Your task to perform on an android device: open app "Skype" (install if not already installed) Image 0: 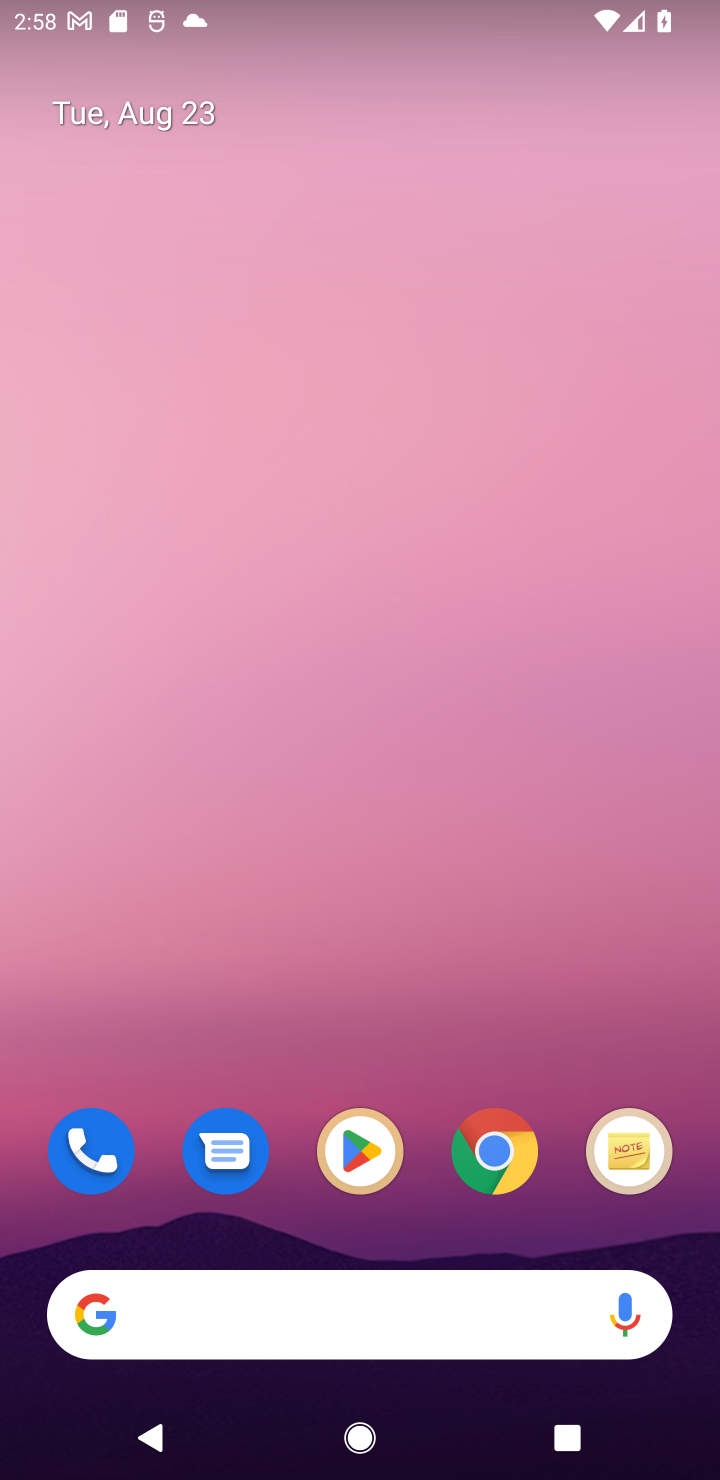
Step 0: click (350, 1146)
Your task to perform on an android device: open app "Skype" (install if not already installed) Image 1: 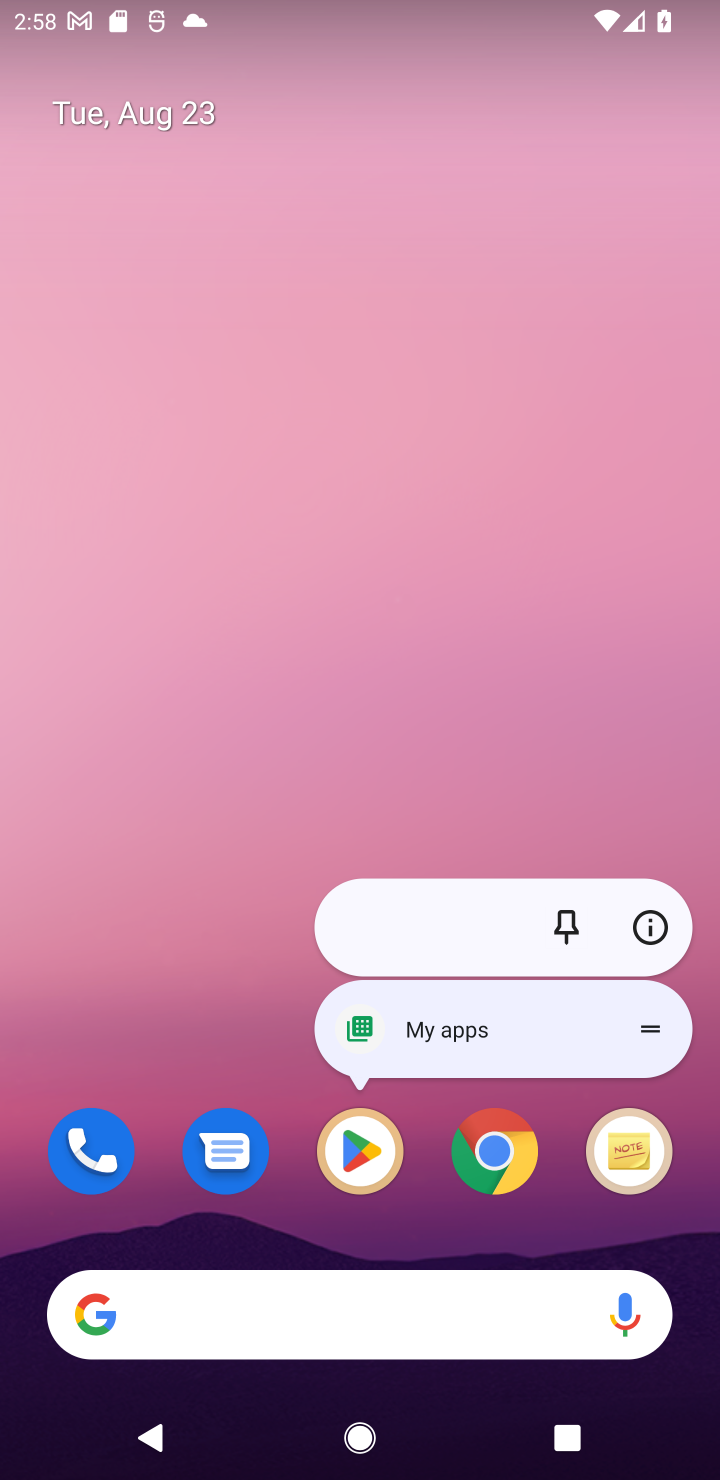
Step 1: click (350, 1149)
Your task to perform on an android device: open app "Skype" (install if not already installed) Image 2: 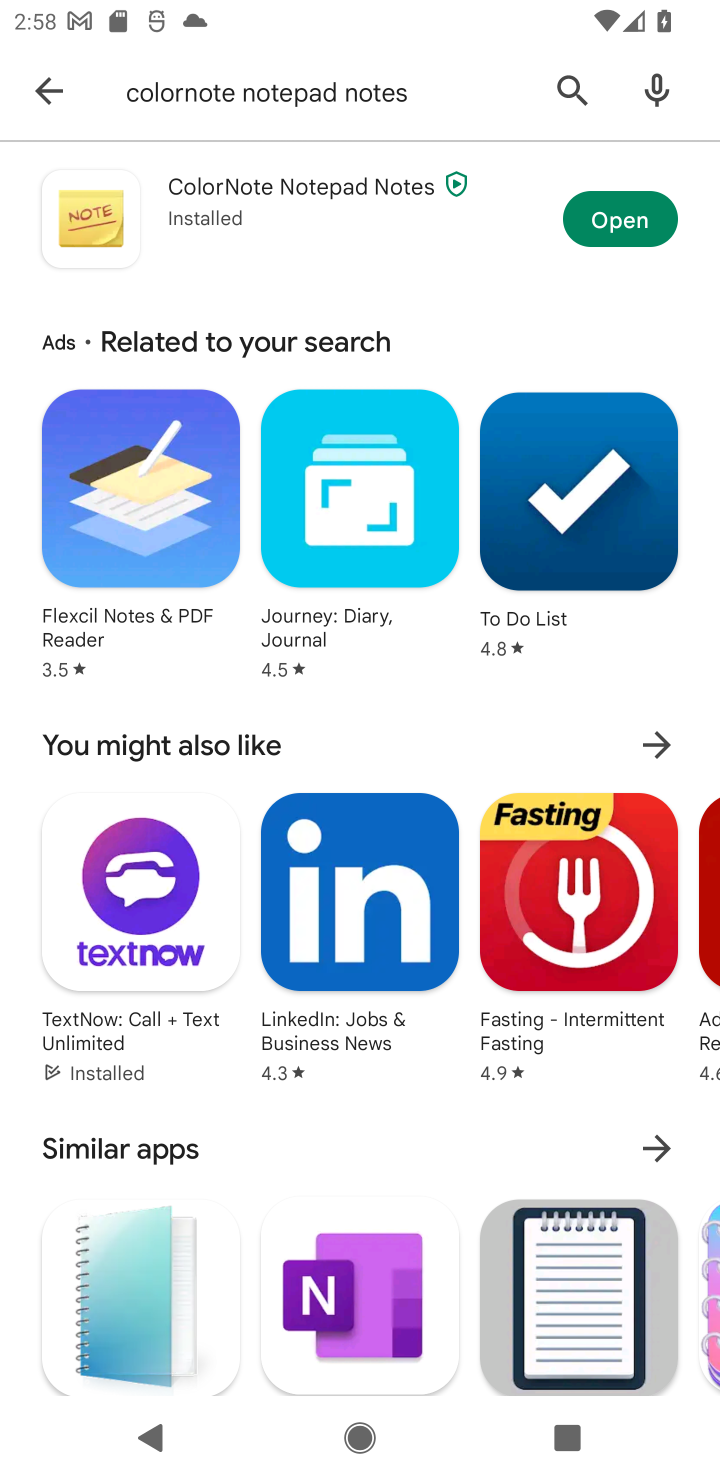
Step 2: click (567, 89)
Your task to perform on an android device: open app "Skype" (install if not already installed) Image 3: 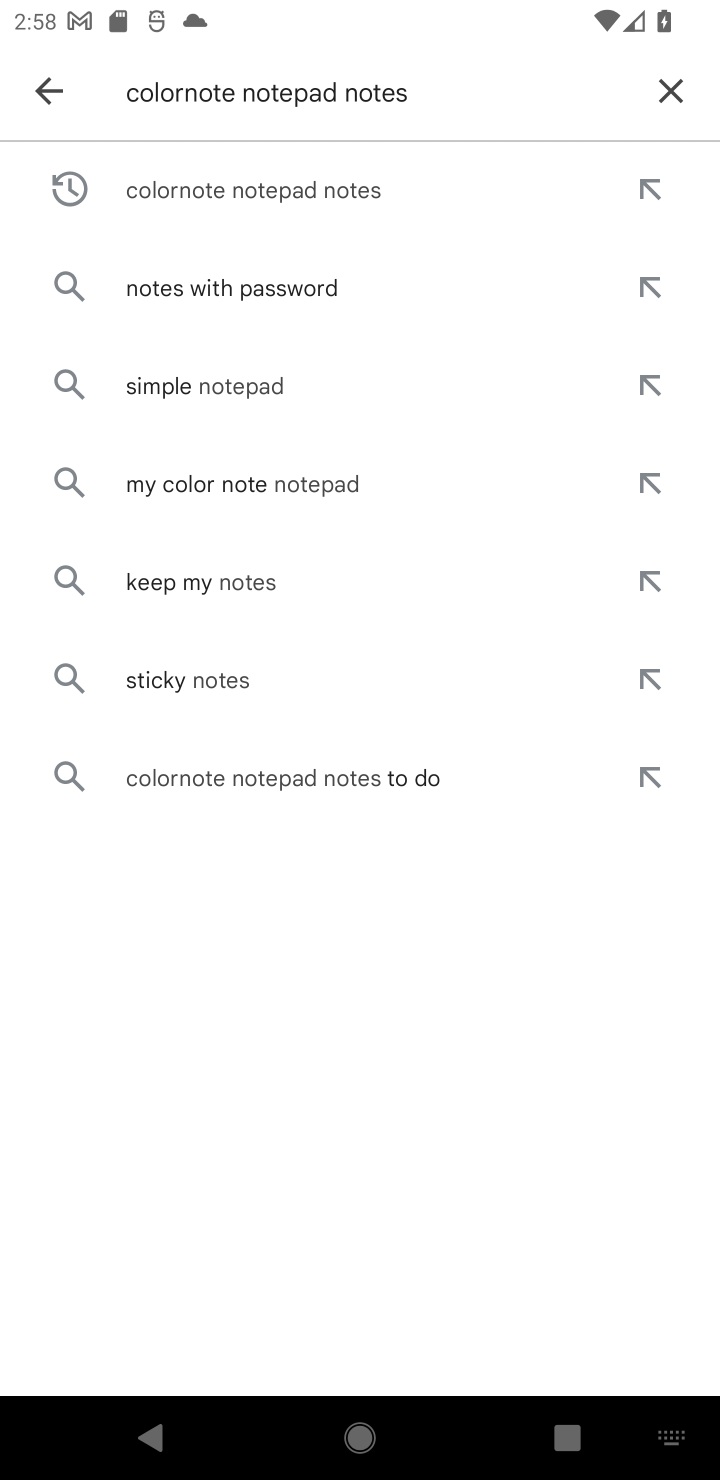
Step 3: click (664, 84)
Your task to perform on an android device: open app "Skype" (install if not already installed) Image 4: 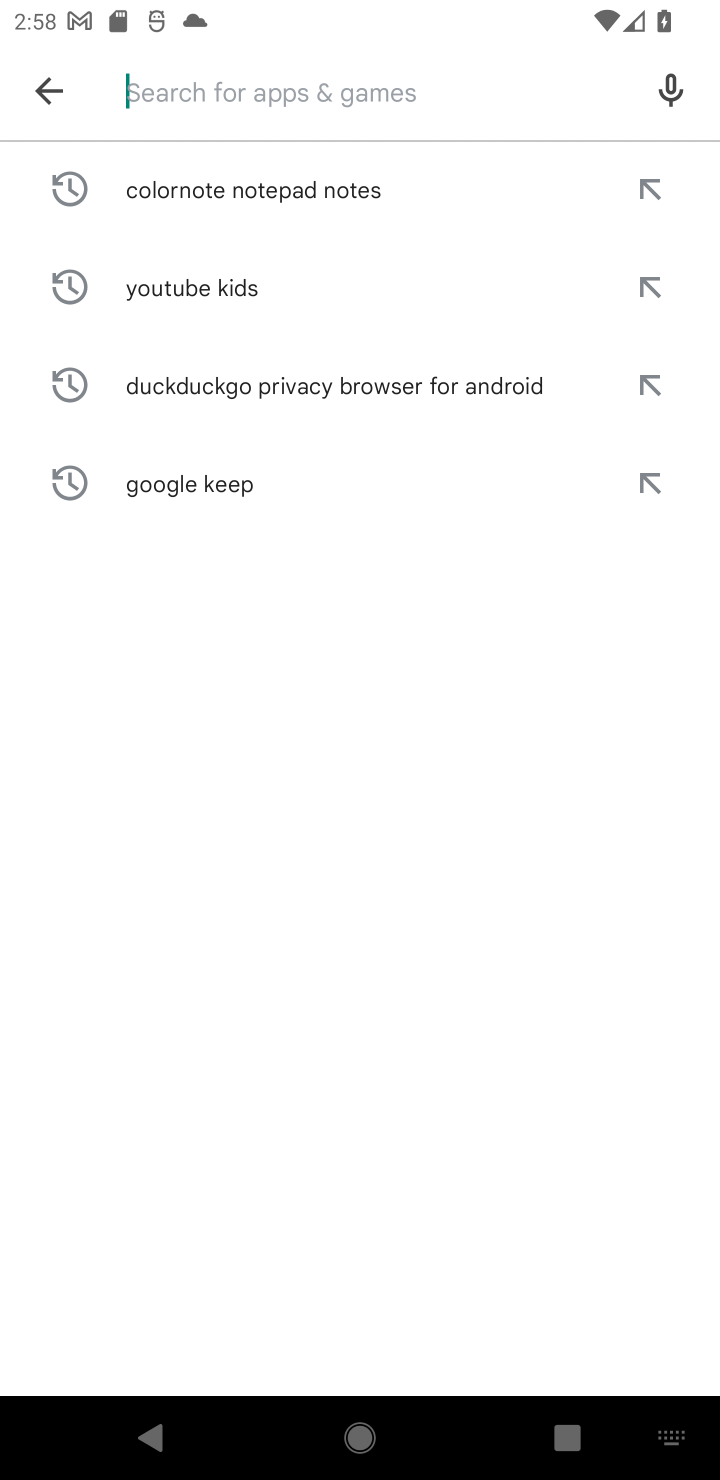
Step 4: type "Skype"
Your task to perform on an android device: open app "Skype" (install if not already installed) Image 5: 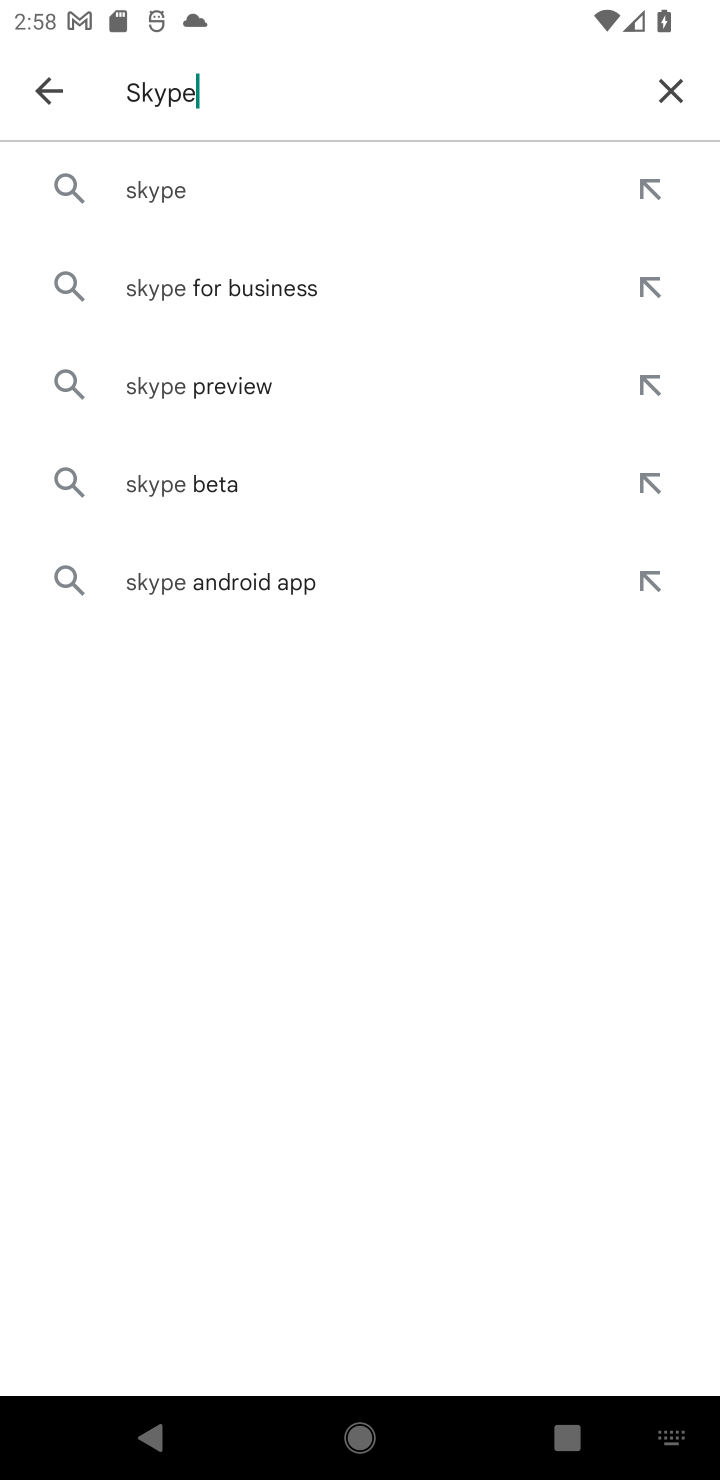
Step 5: click (183, 181)
Your task to perform on an android device: open app "Skype" (install if not already installed) Image 6: 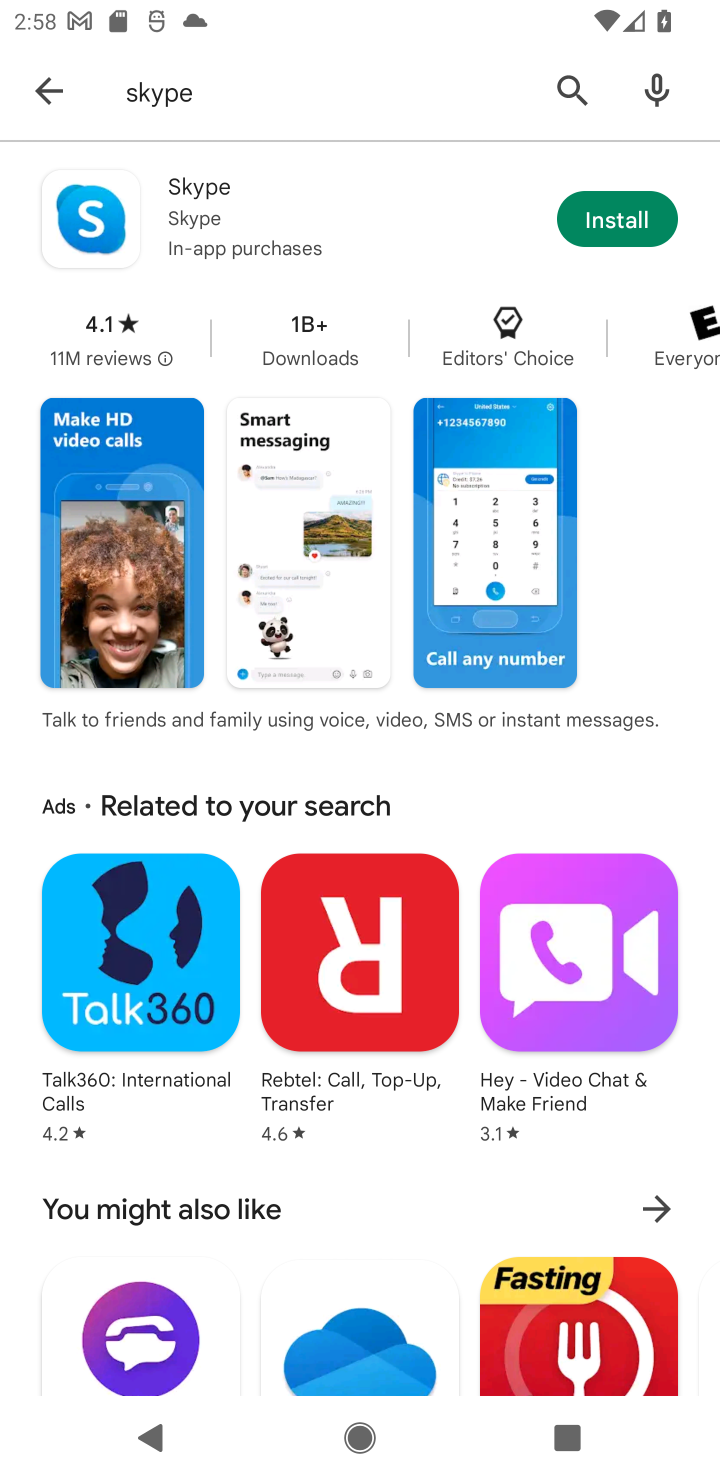
Step 6: click (602, 208)
Your task to perform on an android device: open app "Skype" (install if not already installed) Image 7: 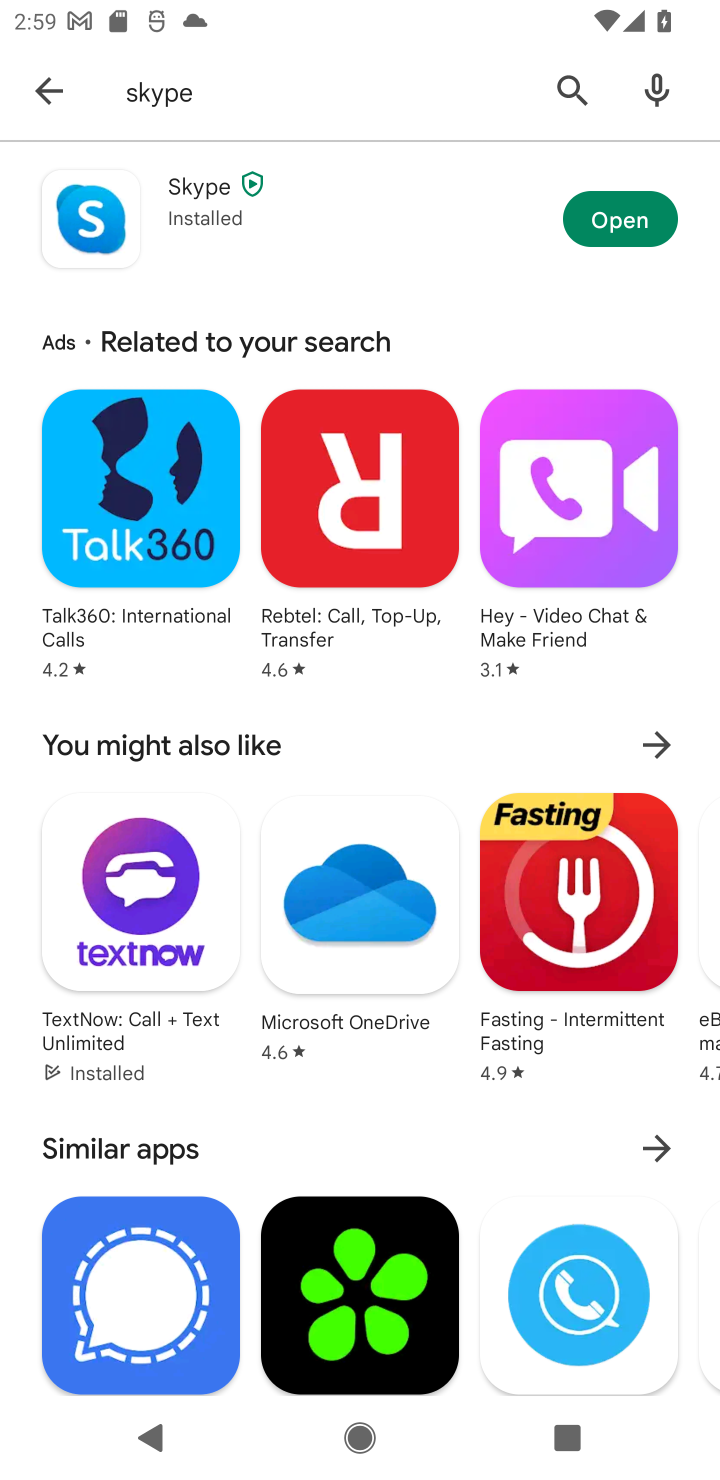
Step 7: click (618, 219)
Your task to perform on an android device: open app "Skype" (install if not already installed) Image 8: 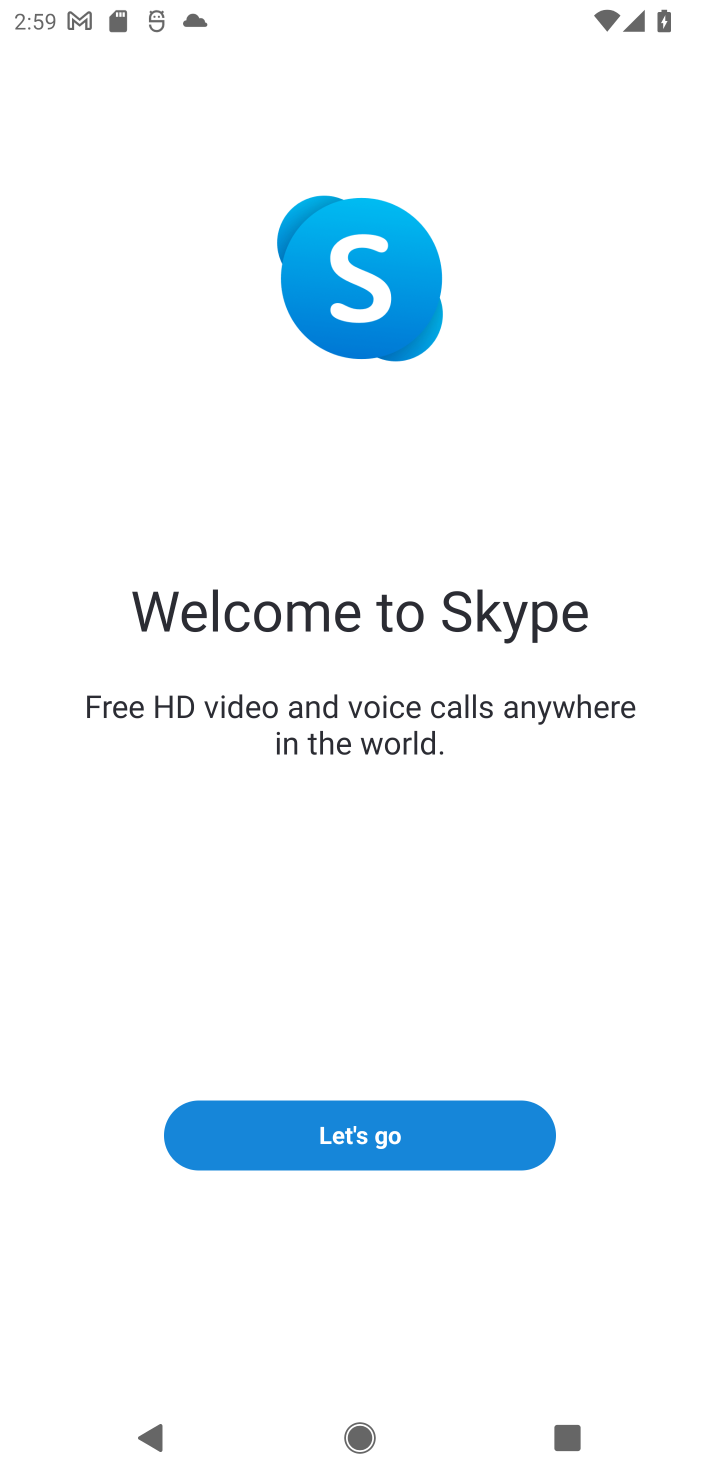
Step 8: task complete